Your task to perform on an android device: Search for floor lamps on article.com Image 0: 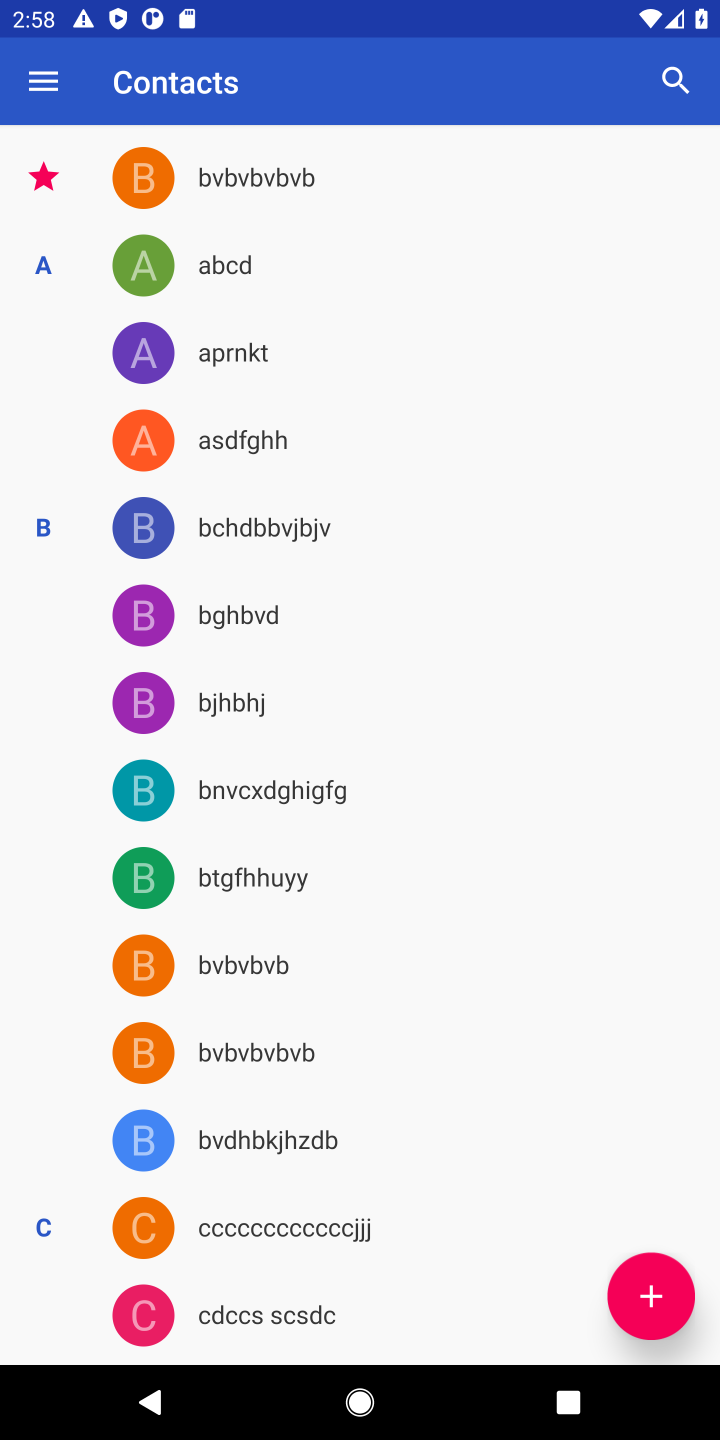
Step 0: press home button
Your task to perform on an android device: Search for floor lamps on article.com Image 1: 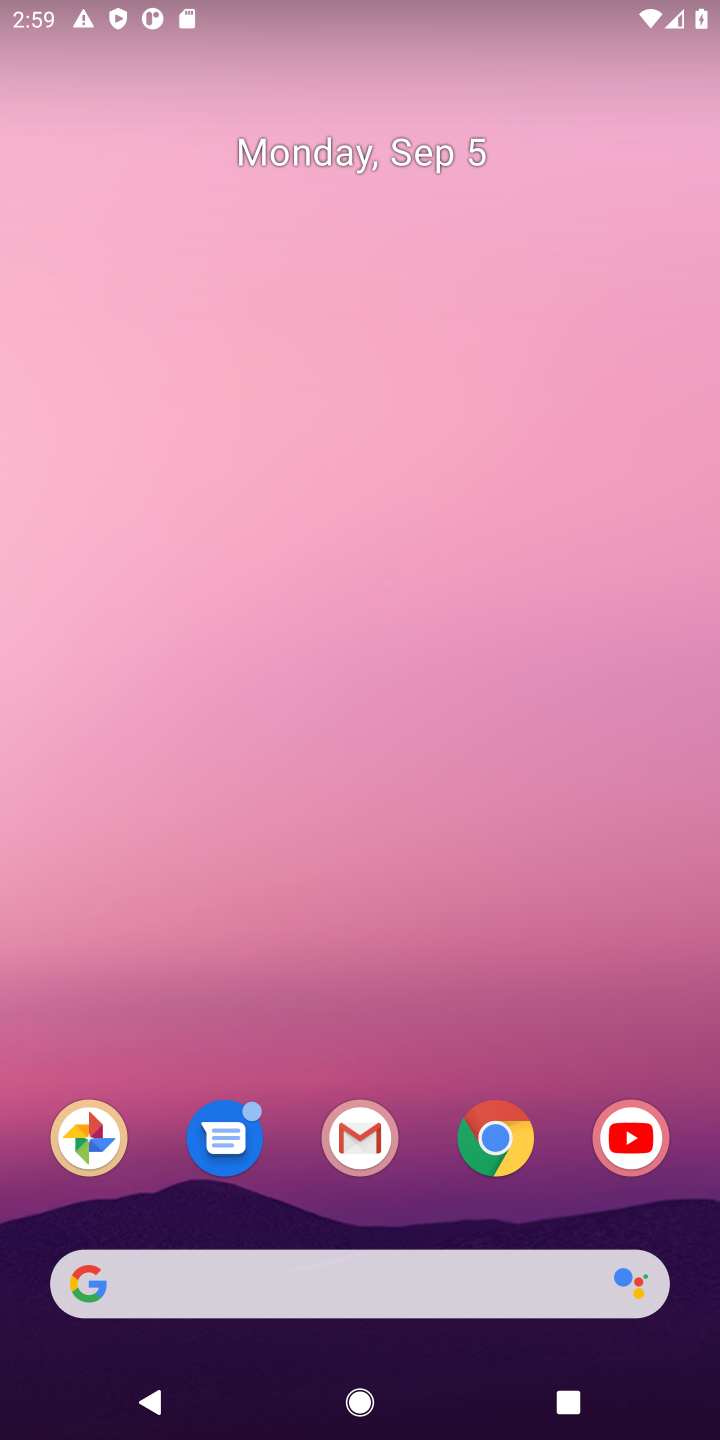
Step 1: click (496, 1140)
Your task to perform on an android device: Search for floor lamps on article.com Image 2: 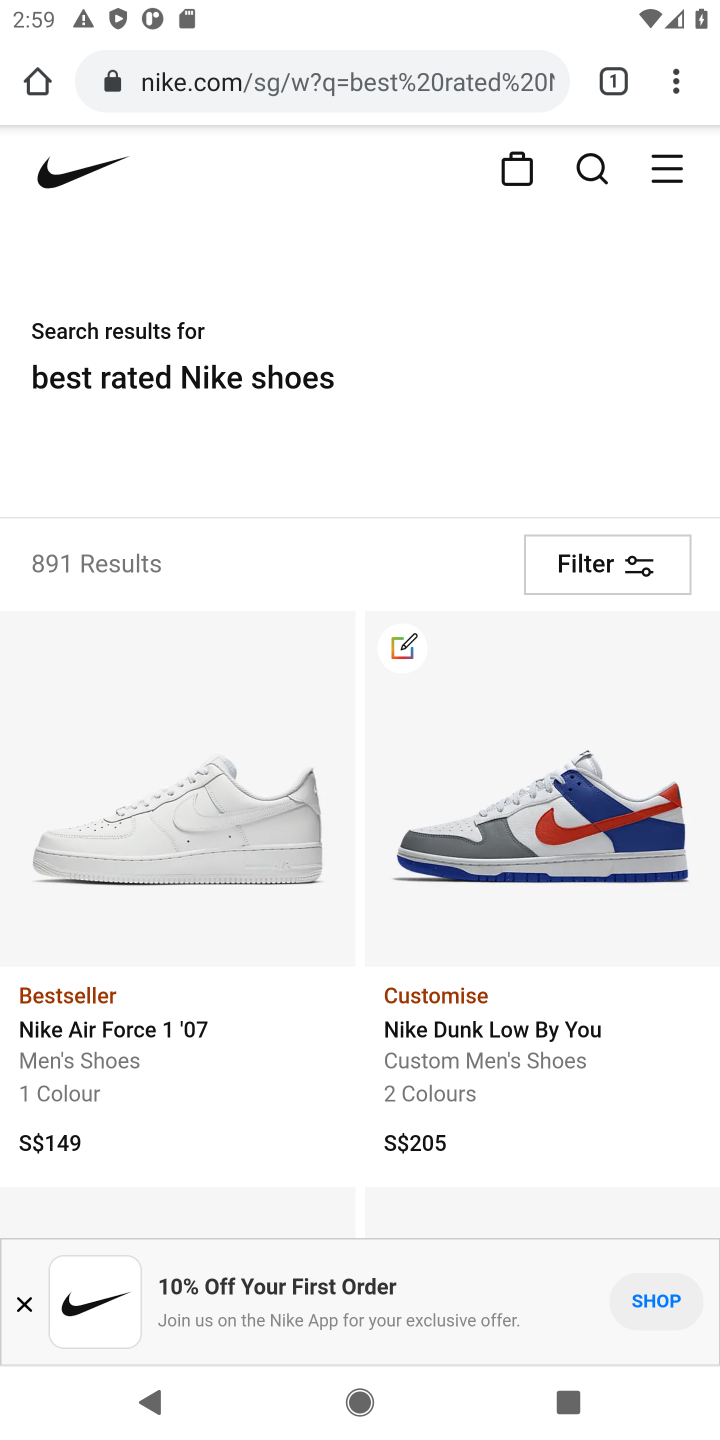
Step 2: click (413, 80)
Your task to perform on an android device: Search for floor lamps on article.com Image 3: 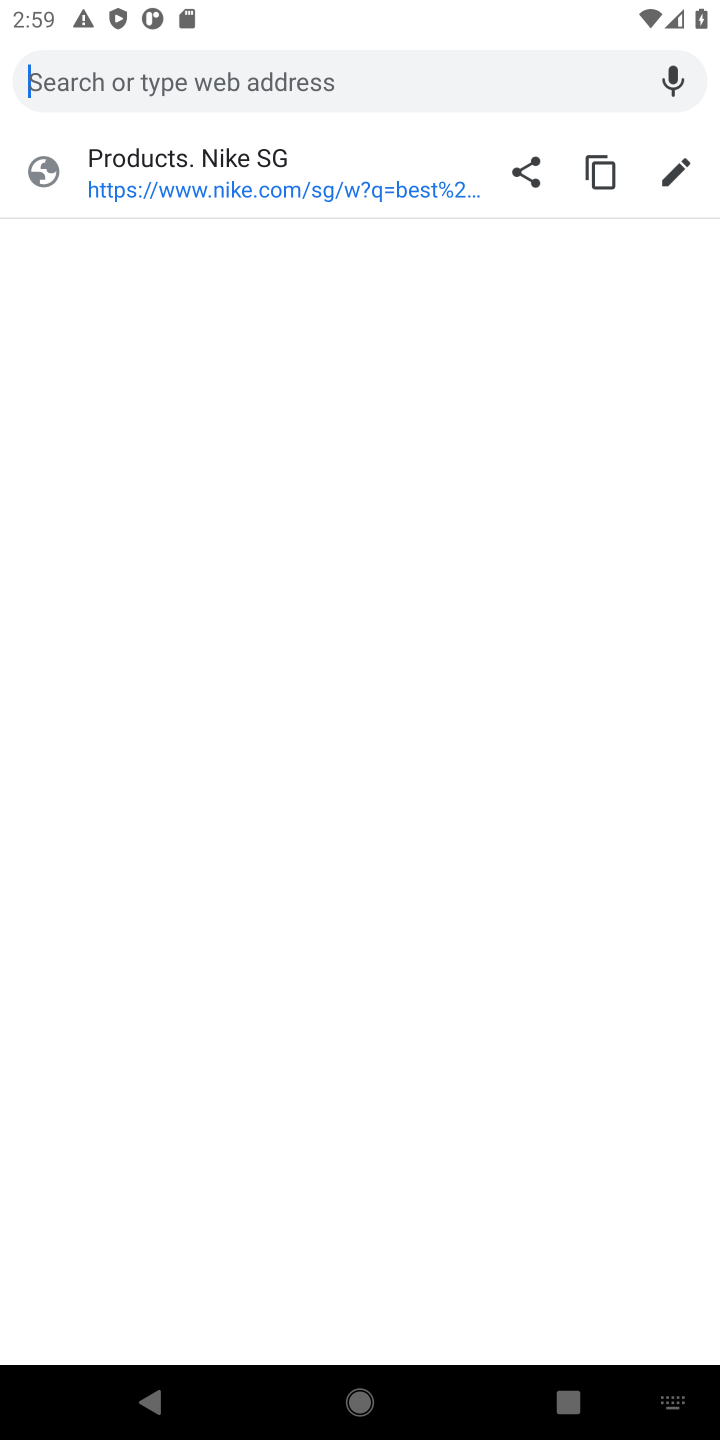
Step 3: type "article.com"
Your task to perform on an android device: Search for floor lamps on article.com Image 4: 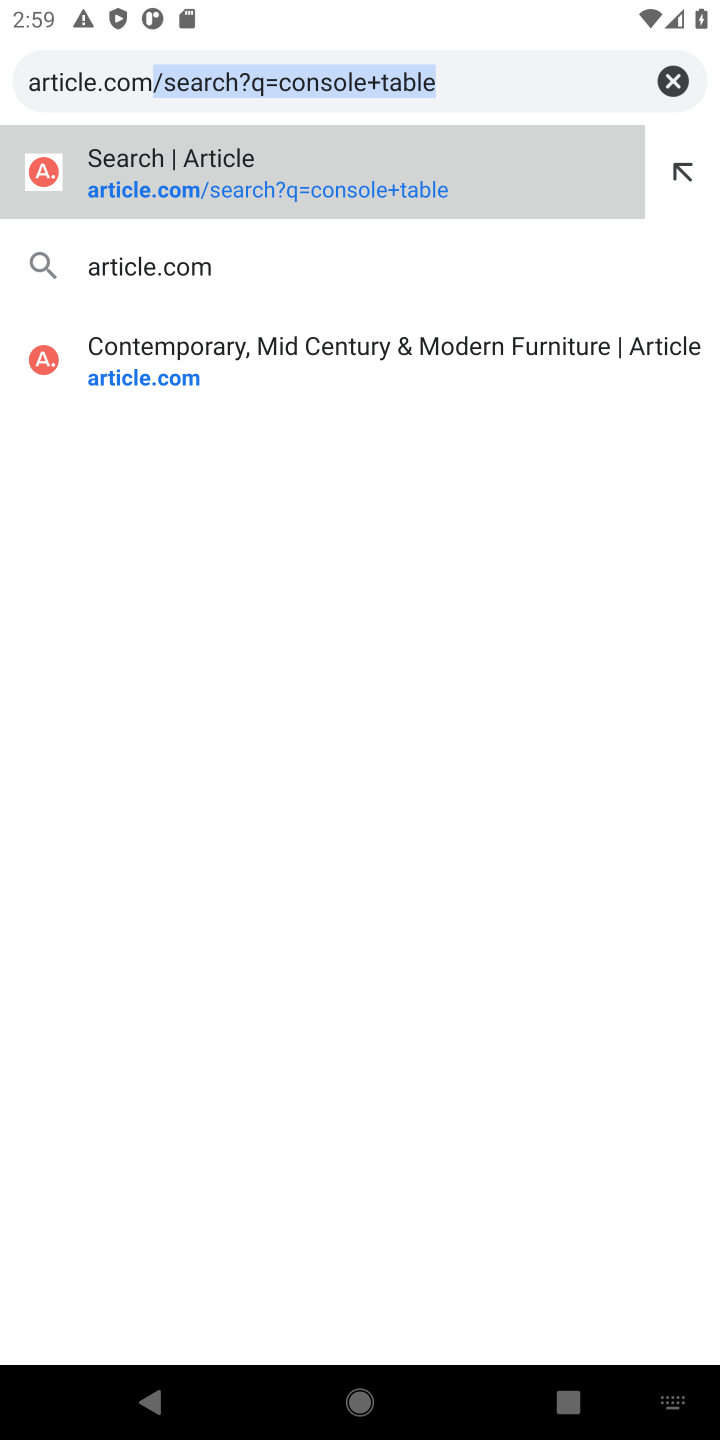
Step 4: click (225, 272)
Your task to perform on an android device: Search for floor lamps on article.com Image 5: 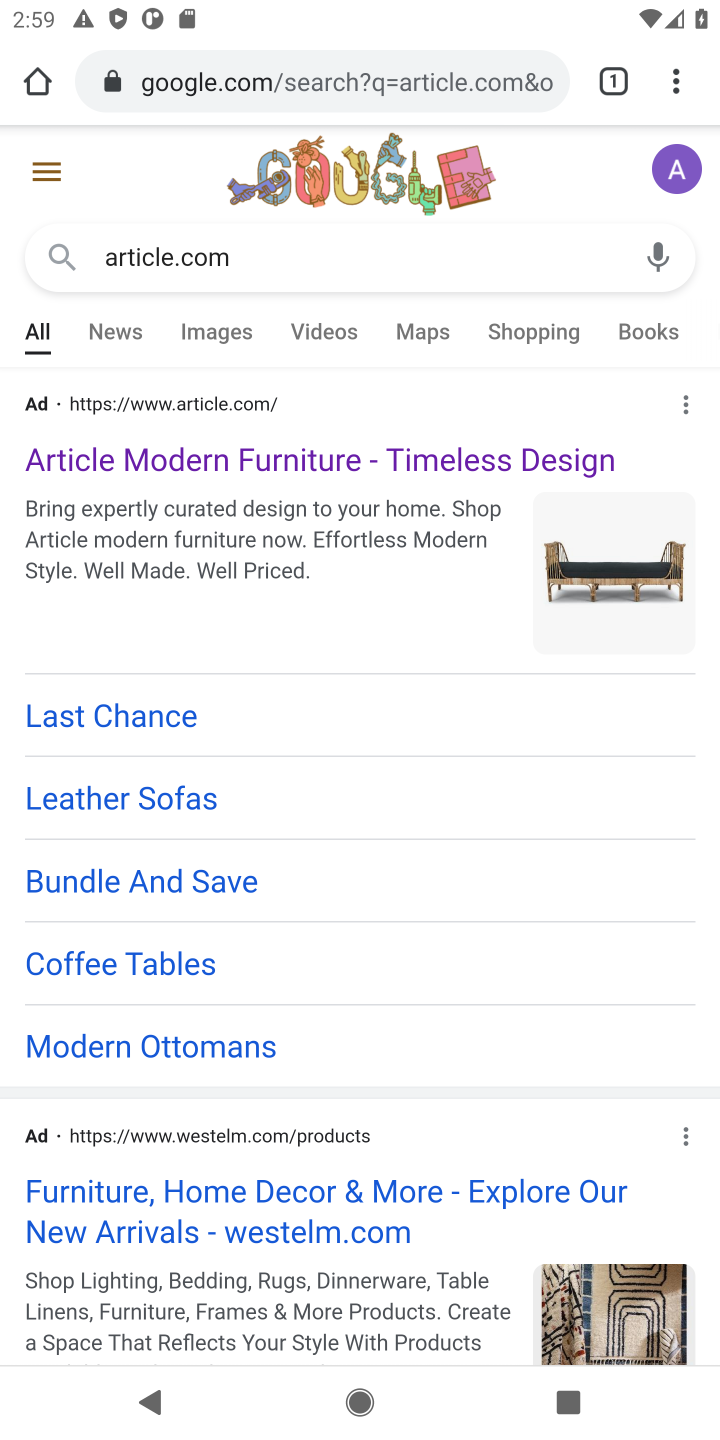
Step 5: drag from (431, 1126) to (426, 341)
Your task to perform on an android device: Search for floor lamps on article.com Image 6: 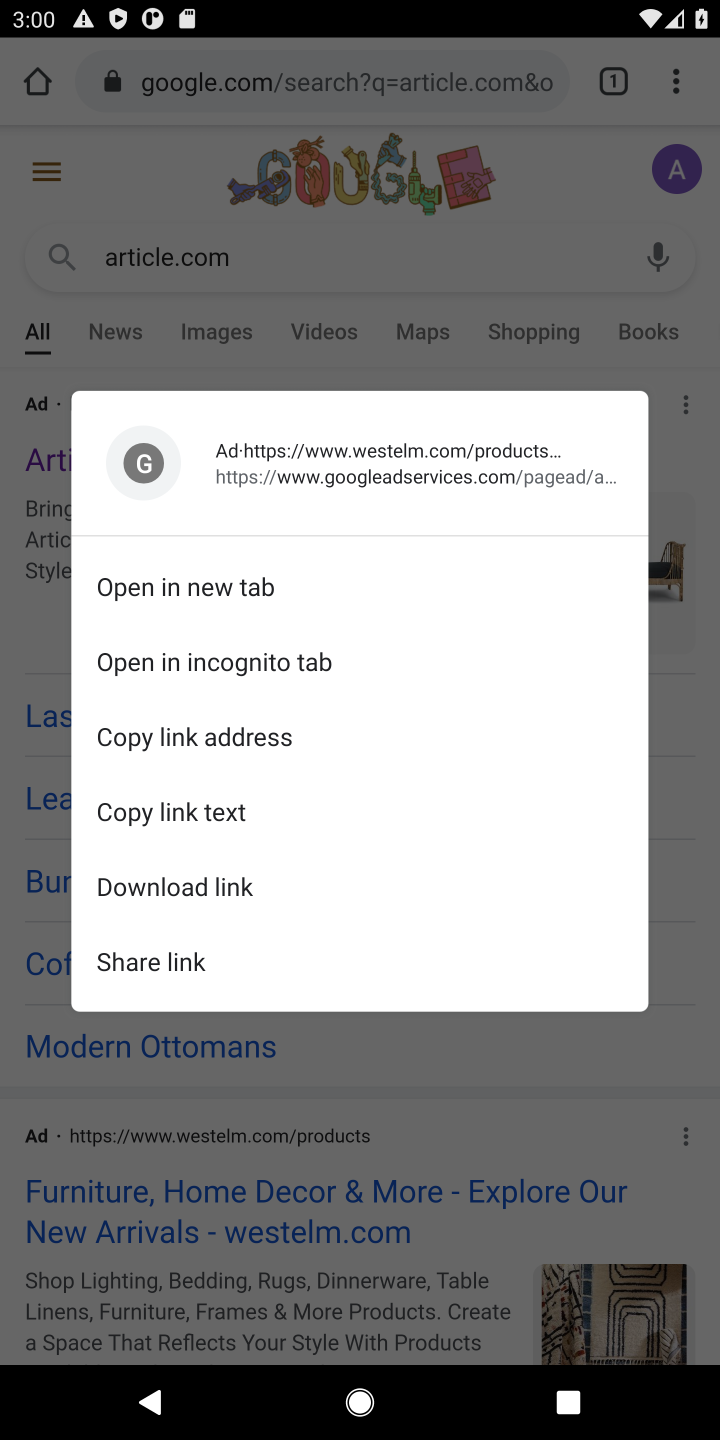
Step 6: click (513, 245)
Your task to perform on an android device: Search for floor lamps on article.com Image 7: 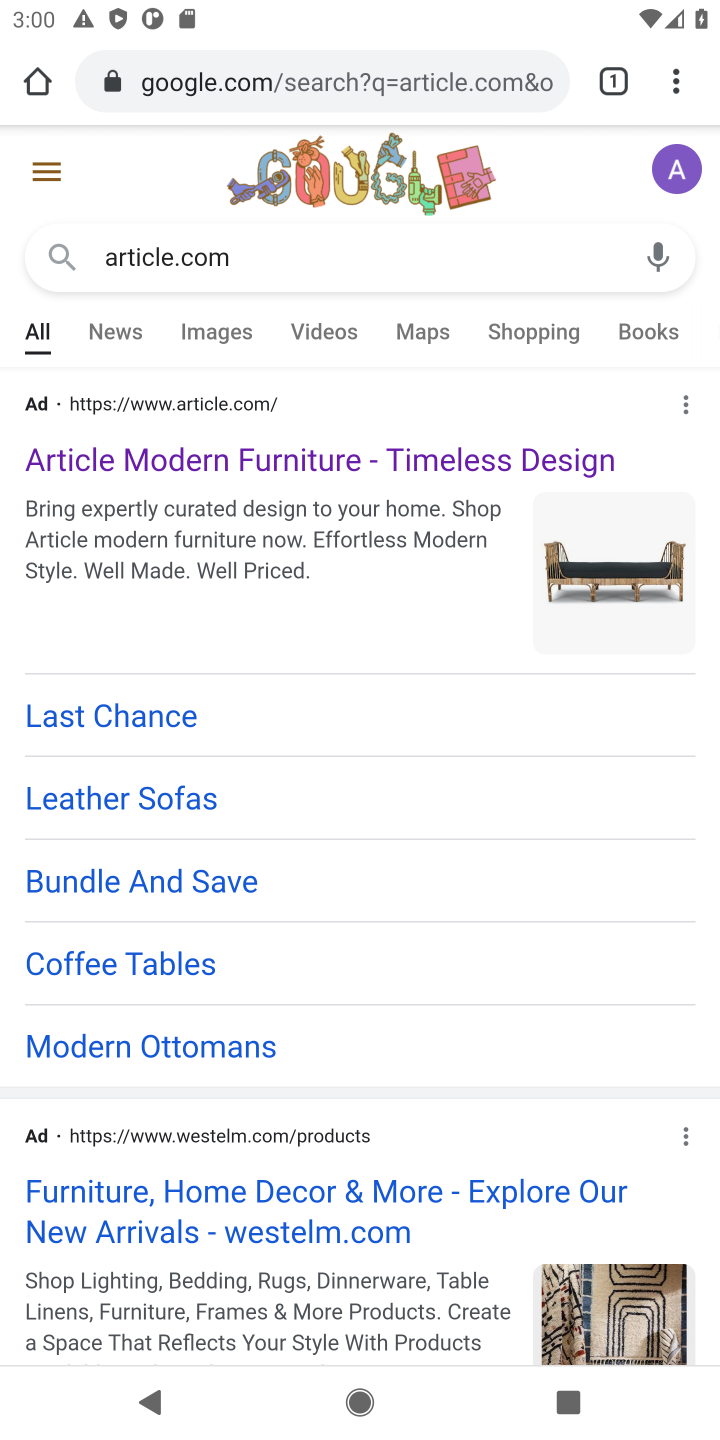
Step 7: drag from (429, 1191) to (436, 620)
Your task to perform on an android device: Search for floor lamps on article.com Image 8: 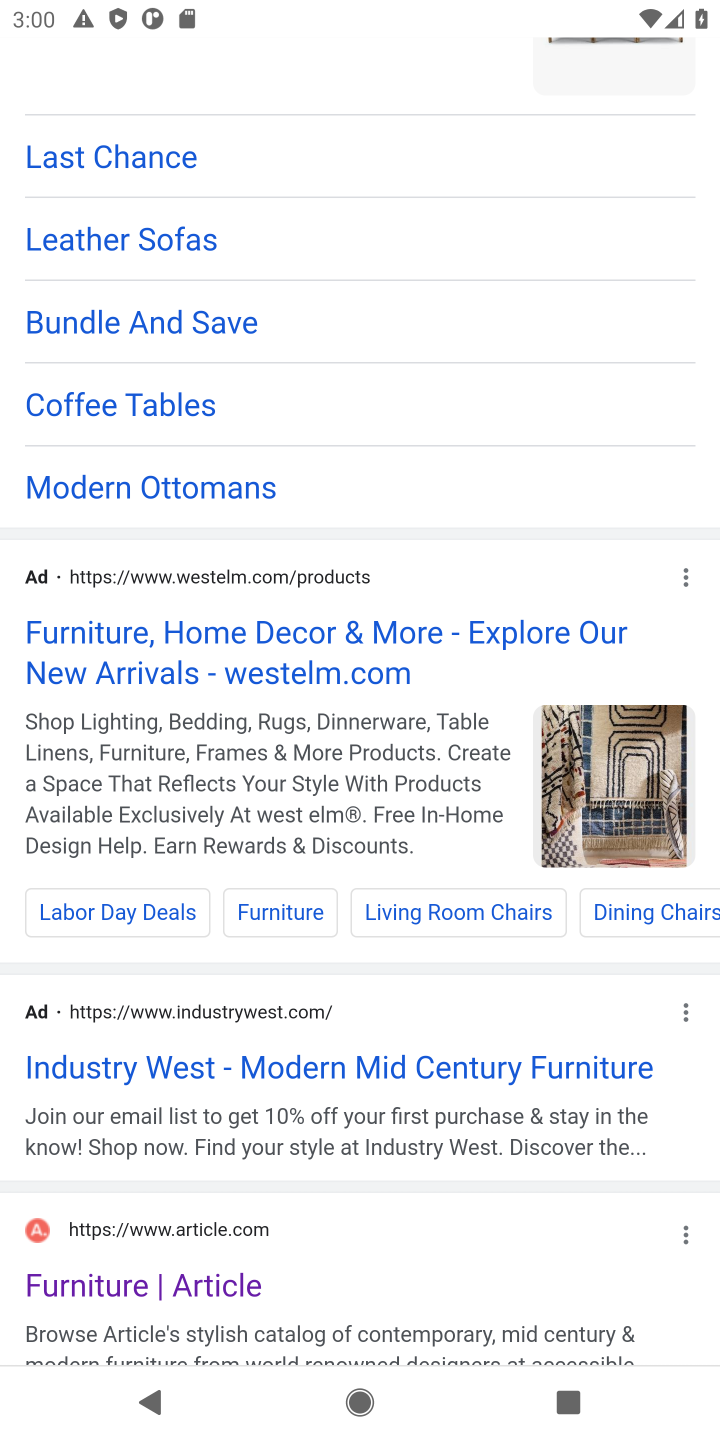
Step 8: click (253, 1309)
Your task to perform on an android device: Search for floor lamps on article.com Image 9: 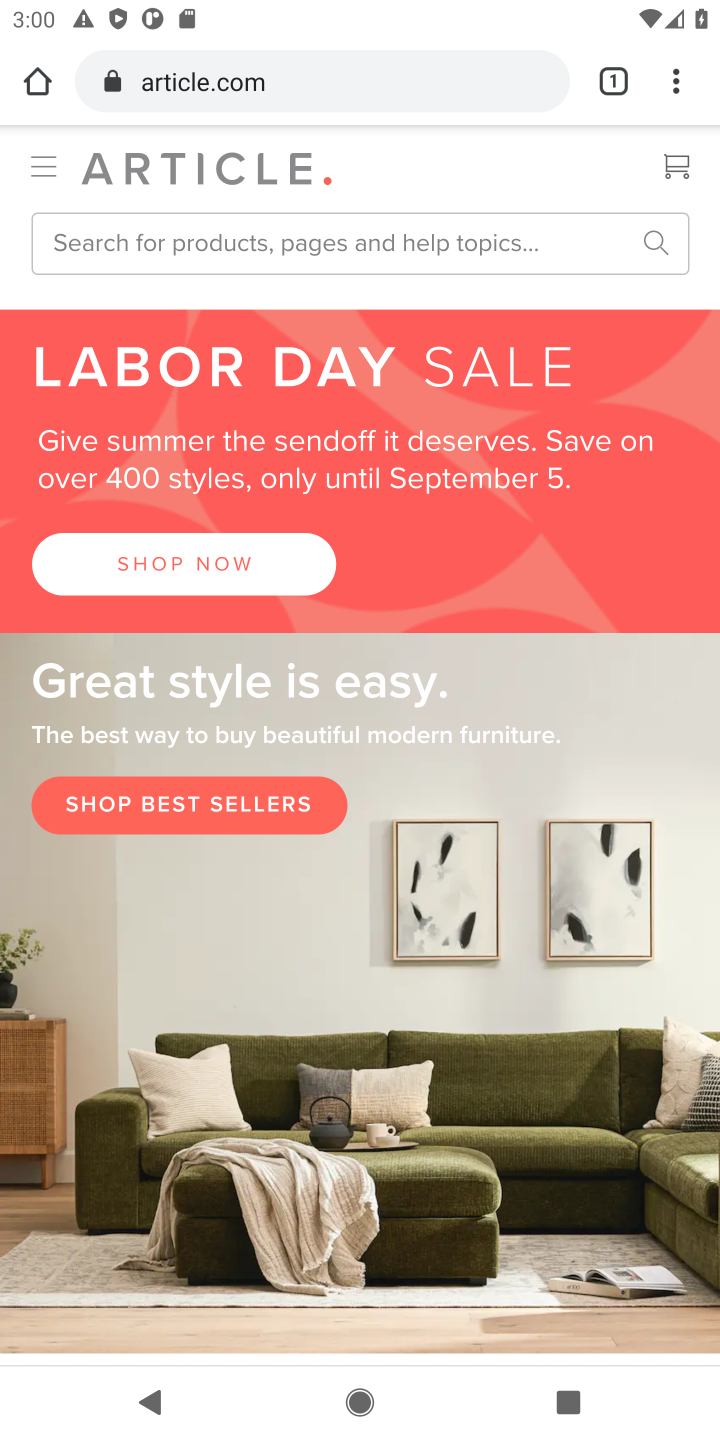
Step 9: click (397, 238)
Your task to perform on an android device: Search for floor lamps on article.com Image 10: 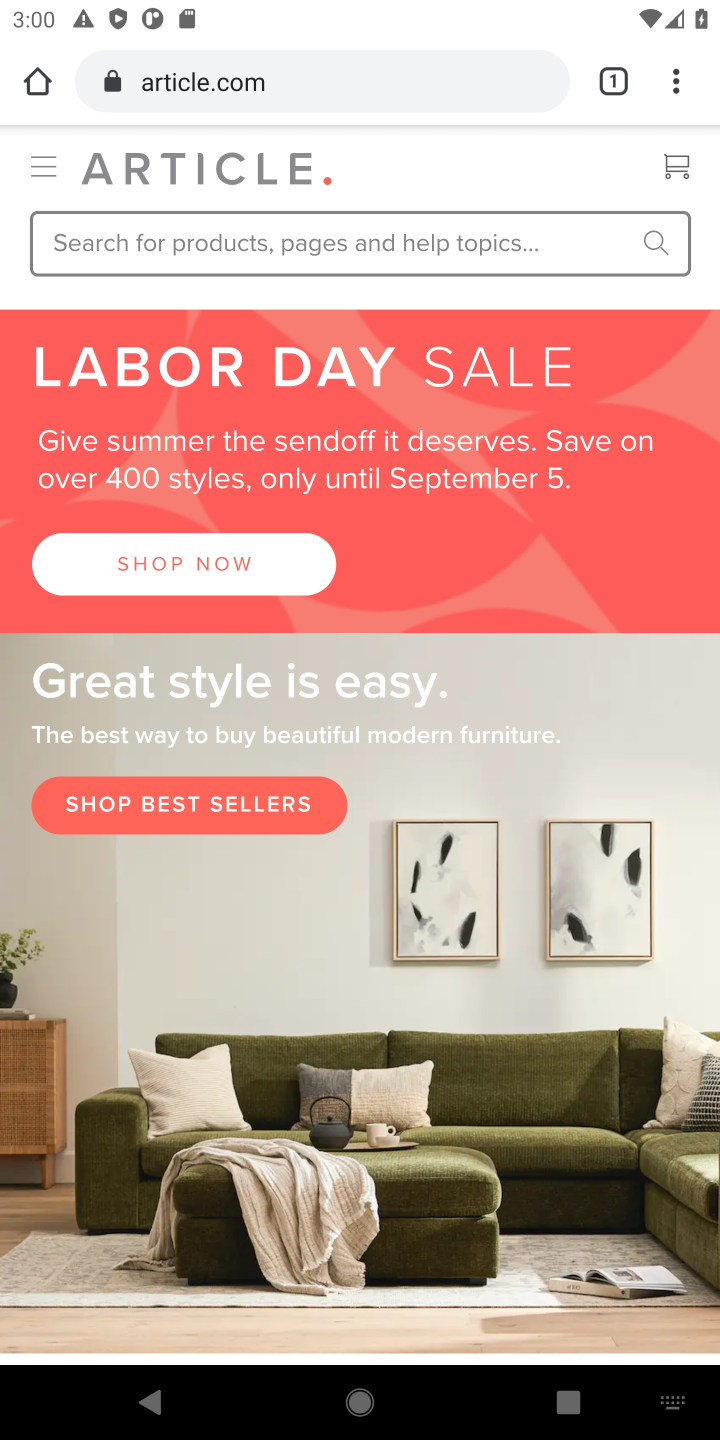
Step 10: click (420, 244)
Your task to perform on an android device: Search for floor lamps on article.com Image 11: 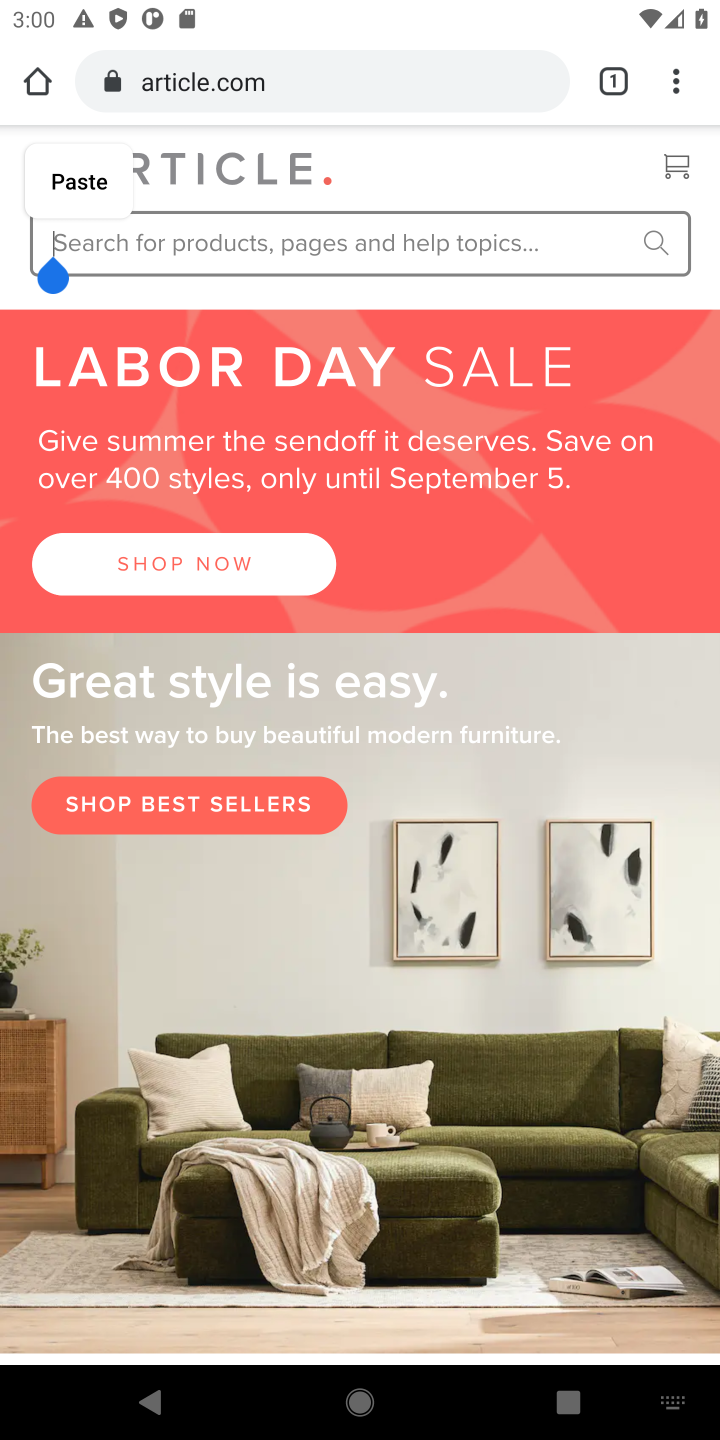
Step 11: type "floor lamps"
Your task to perform on an android device: Search for floor lamps on article.com Image 12: 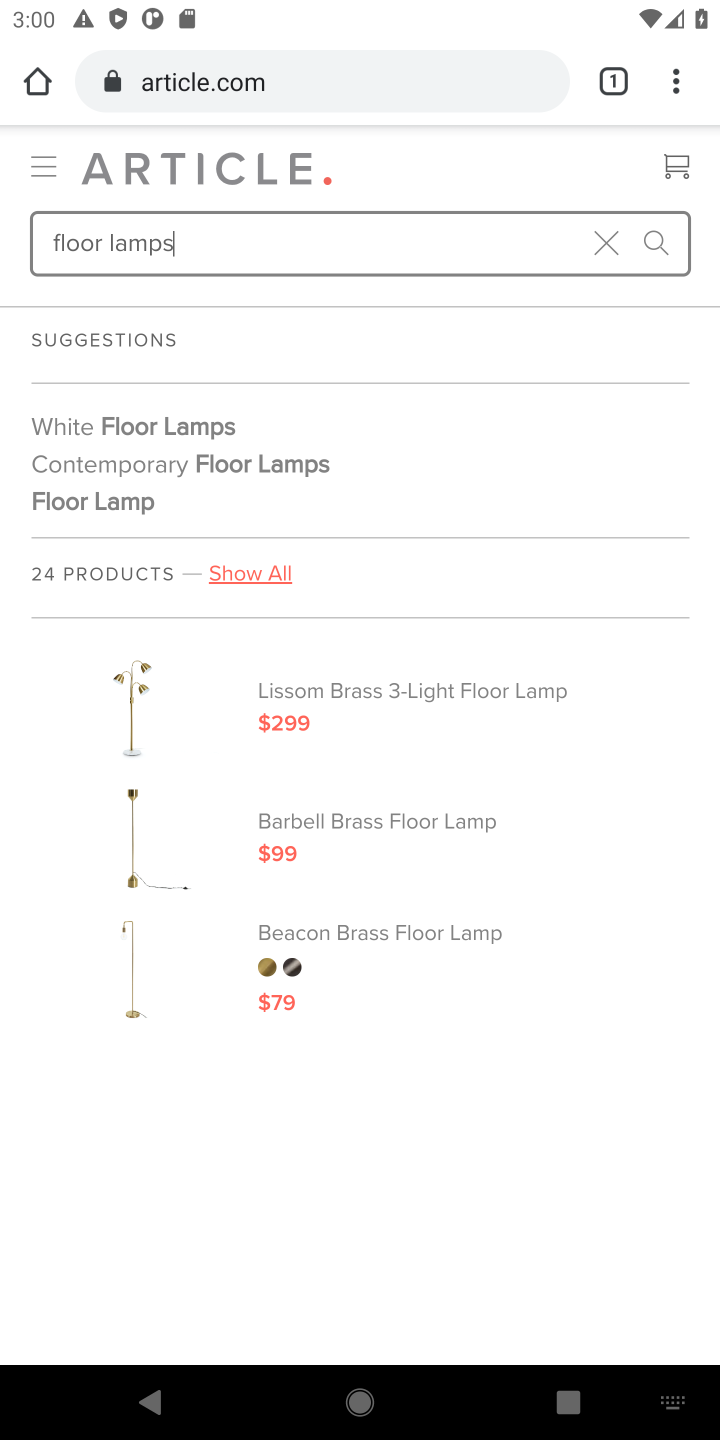
Step 12: click (650, 250)
Your task to perform on an android device: Search for floor lamps on article.com Image 13: 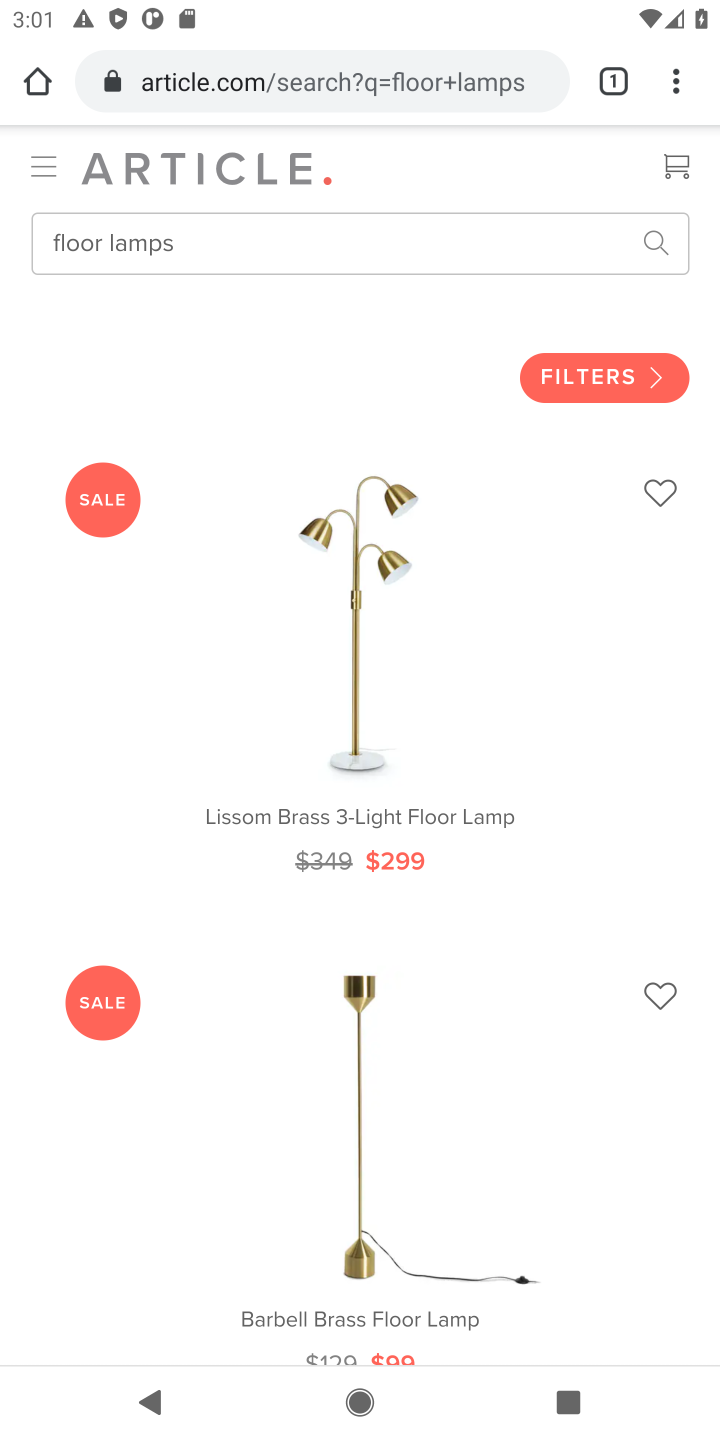
Step 13: task complete